Your task to perform on an android device: show emergency info Image 0: 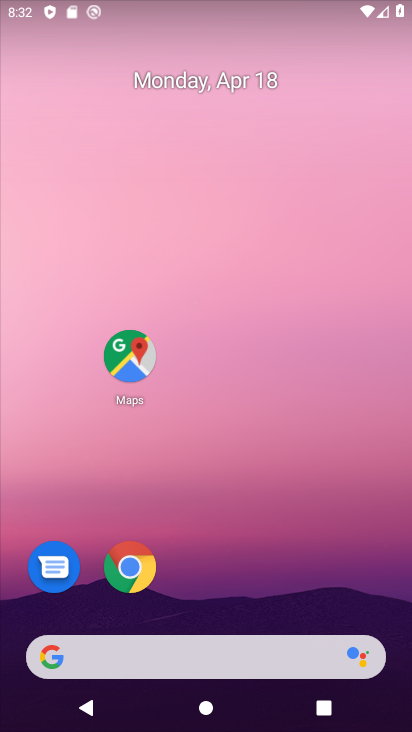
Step 0: drag from (305, 685) to (224, 18)
Your task to perform on an android device: show emergency info Image 1: 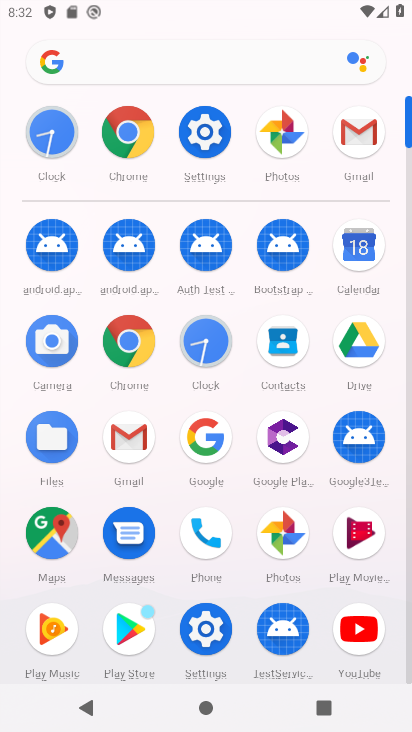
Step 1: click (211, 638)
Your task to perform on an android device: show emergency info Image 2: 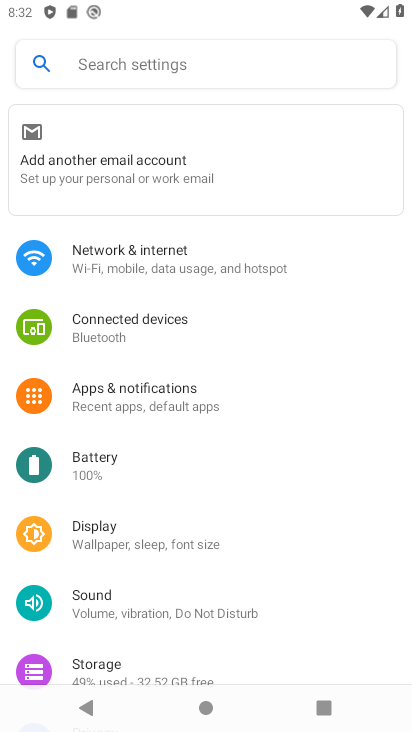
Step 2: click (159, 66)
Your task to perform on an android device: show emergency info Image 3: 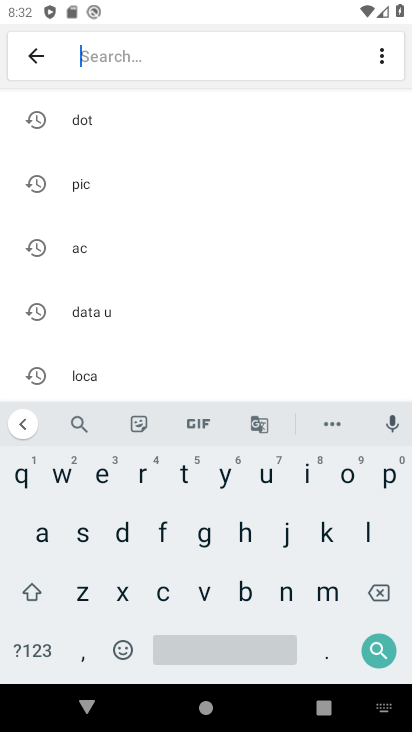
Step 3: click (104, 475)
Your task to perform on an android device: show emergency info Image 4: 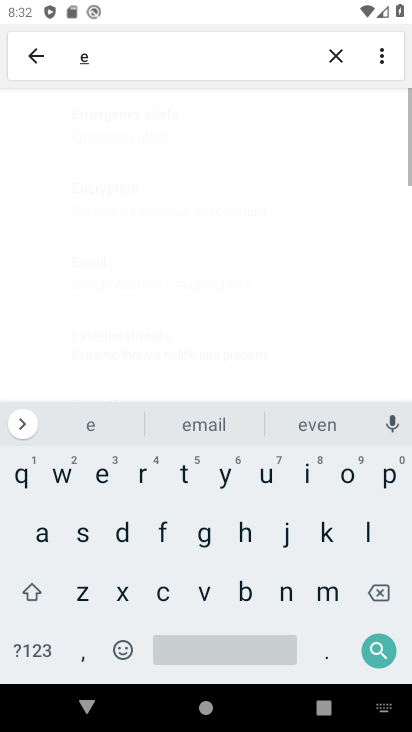
Step 4: click (325, 594)
Your task to perform on an android device: show emergency info Image 5: 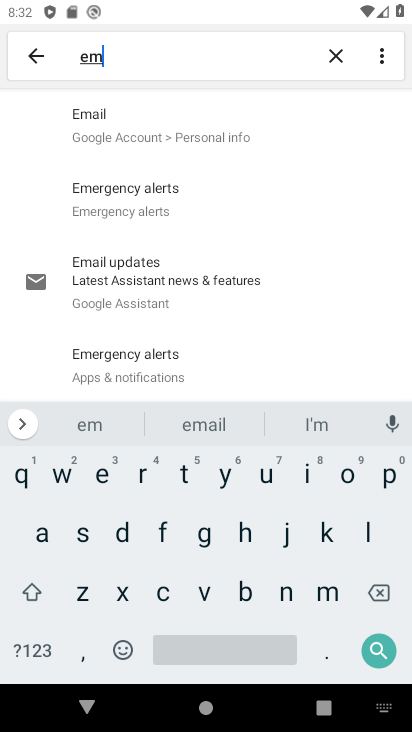
Step 5: click (101, 467)
Your task to perform on an android device: show emergency info Image 6: 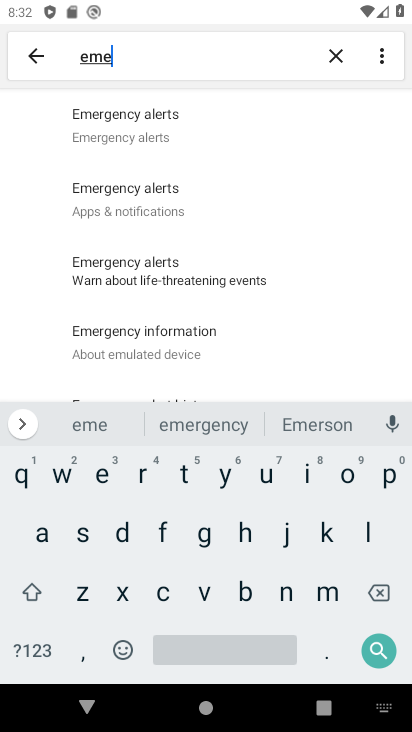
Step 6: click (142, 477)
Your task to perform on an android device: show emergency info Image 7: 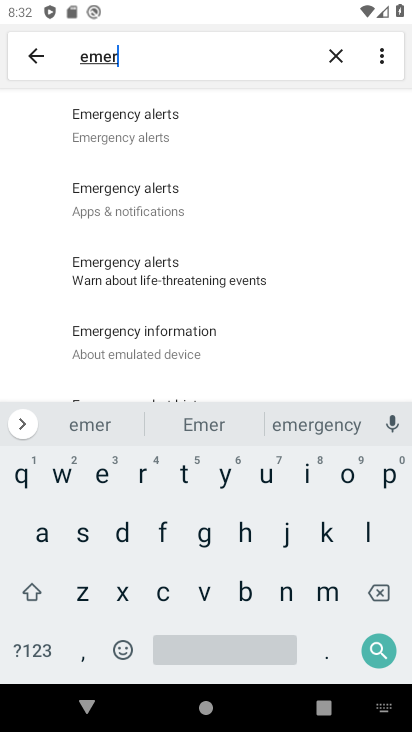
Step 7: click (295, 435)
Your task to perform on an android device: show emergency info Image 8: 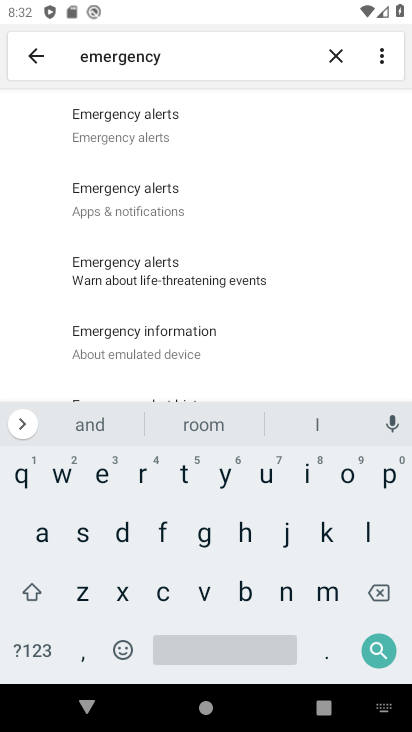
Step 8: click (309, 473)
Your task to perform on an android device: show emergency info Image 9: 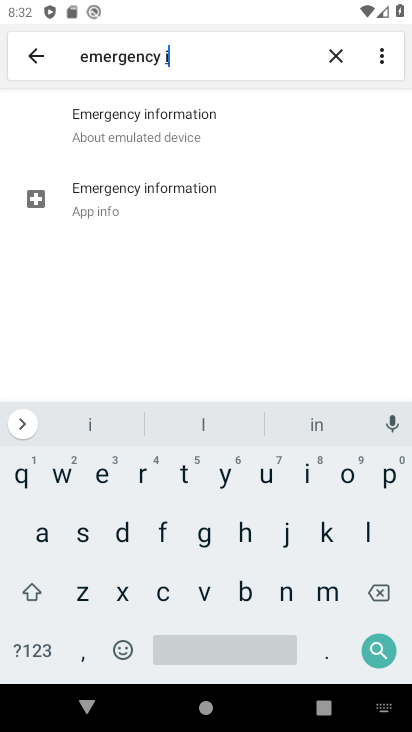
Step 9: click (169, 128)
Your task to perform on an android device: show emergency info Image 10: 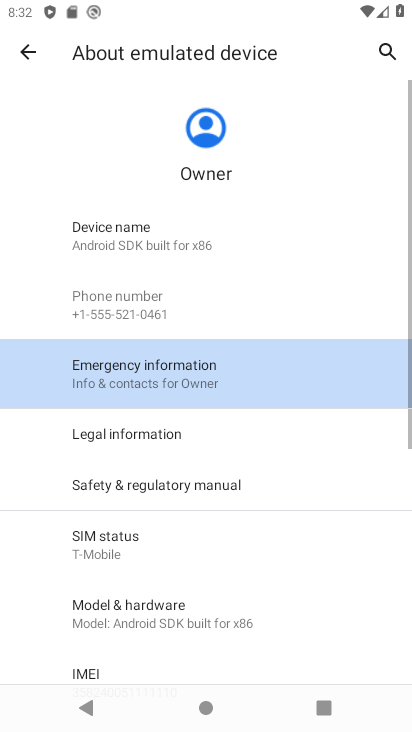
Step 10: task complete